Your task to perform on an android device: Go to Reddit.com Image 0: 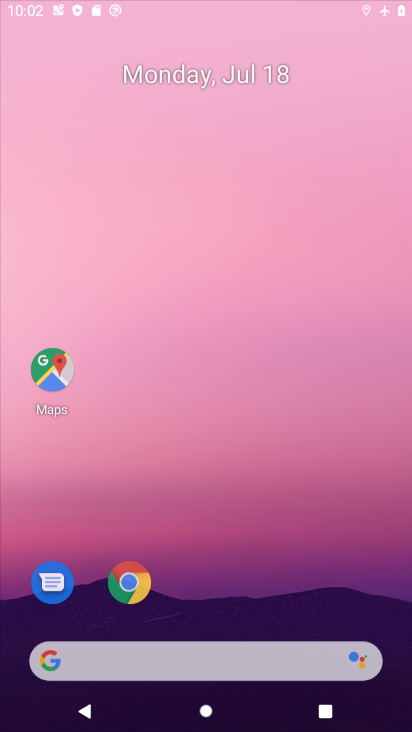
Step 0: click (233, 136)
Your task to perform on an android device: Go to Reddit.com Image 1: 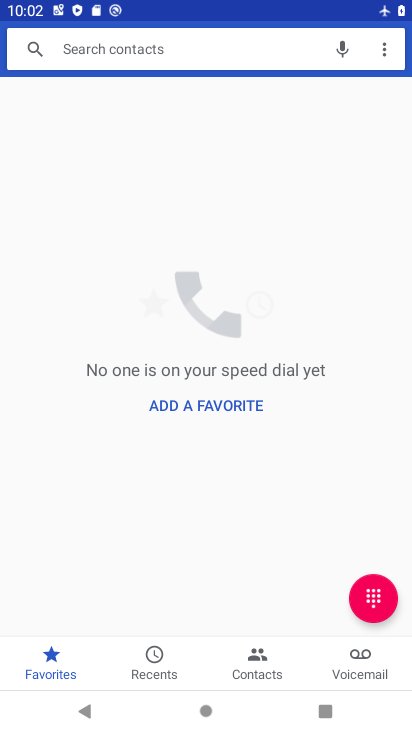
Step 1: press home button
Your task to perform on an android device: Go to Reddit.com Image 2: 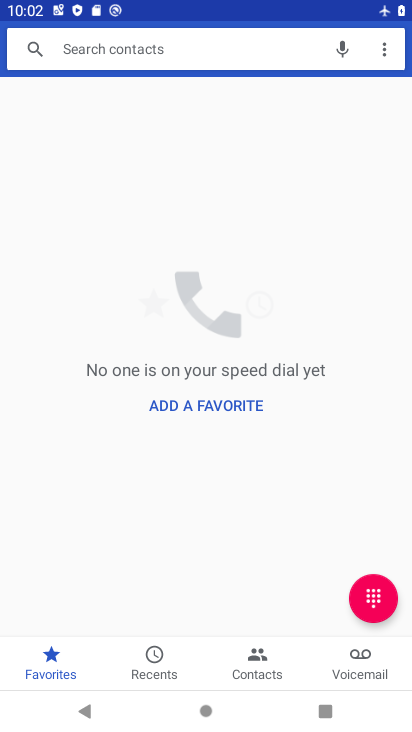
Step 2: press home button
Your task to perform on an android device: Go to Reddit.com Image 3: 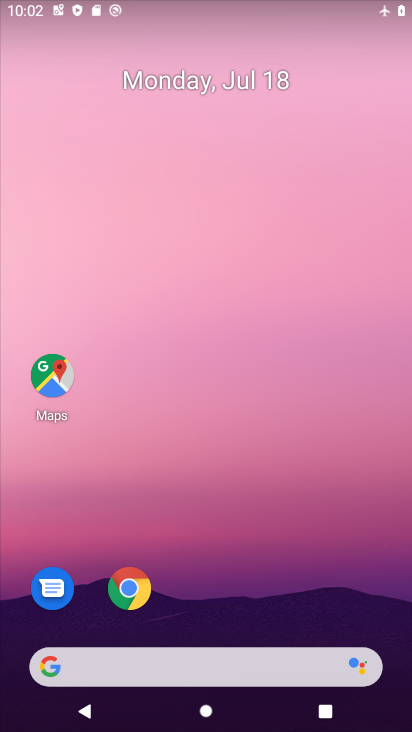
Step 3: click (257, 663)
Your task to perform on an android device: Go to Reddit.com Image 4: 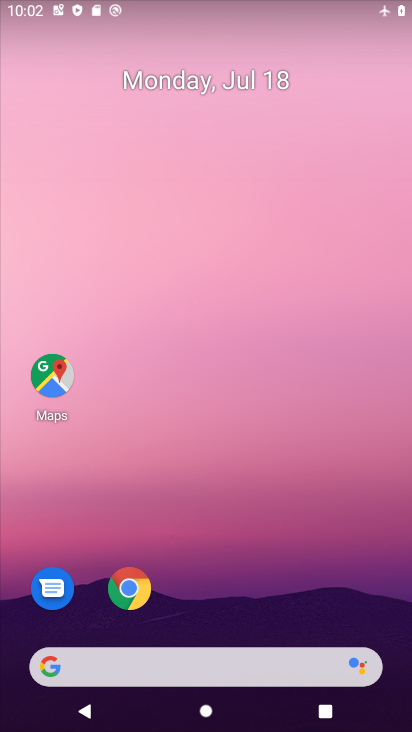
Step 4: click (273, 355)
Your task to perform on an android device: Go to Reddit.com Image 5: 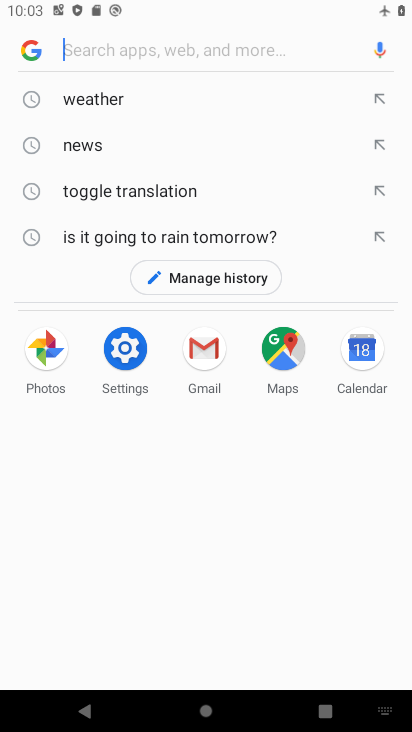
Step 5: type "r"
Your task to perform on an android device: Go to Reddit.com Image 6: 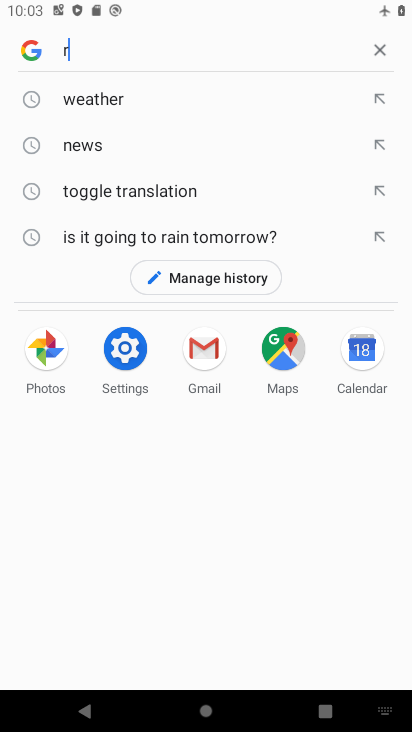
Step 6: press home button
Your task to perform on an android device: Go to Reddit.com Image 7: 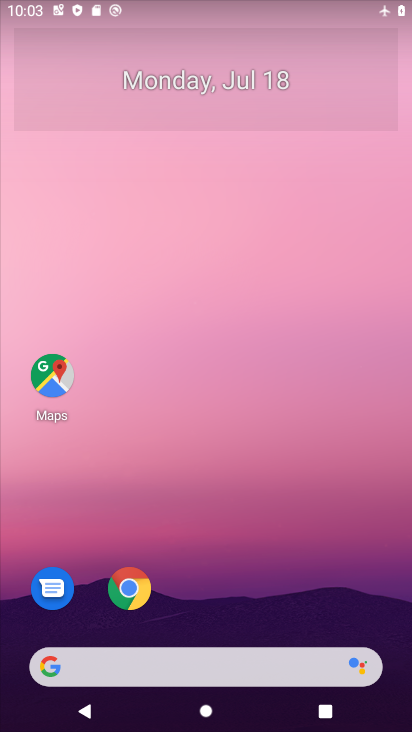
Step 7: click (126, 588)
Your task to perform on an android device: Go to Reddit.com Image 8: 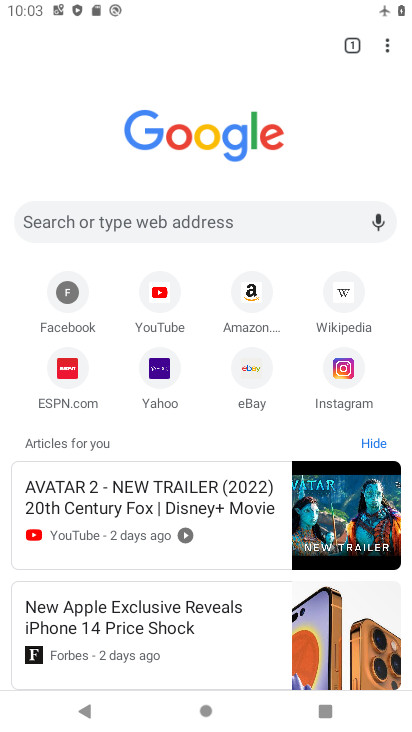
Step 8: click (218, 220)
Your task to perform on an android device: Go to Reddit.com Image 9: 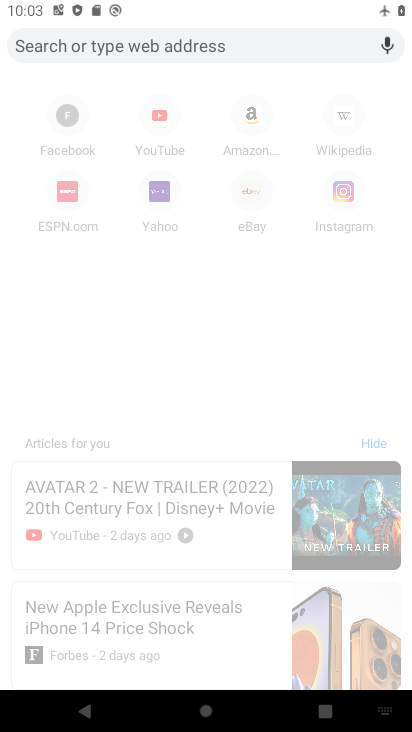
Step 9: type "Reddit.com"
Your task to perform on an android device: Go to Reddit.com Image 10: 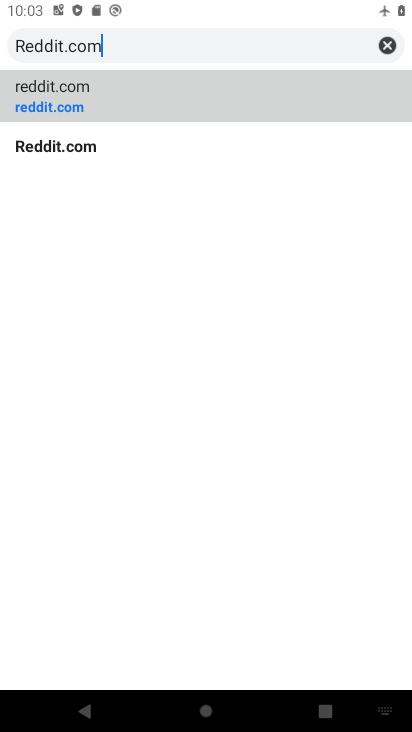
Step 10: type ""
Your task to perform on an android device: Go to Reddit.com Image 11: 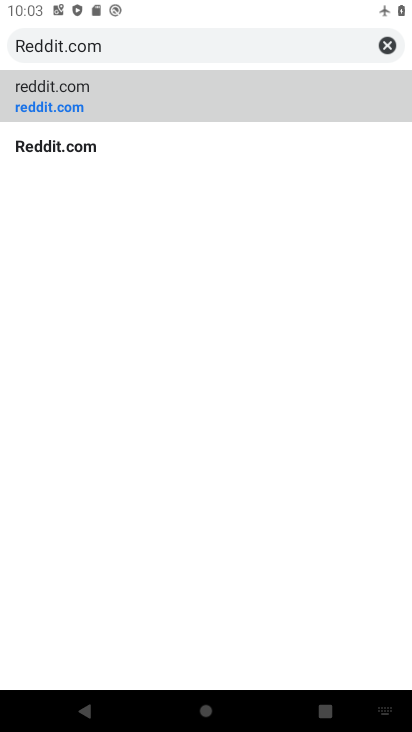
Step 11: click (51, 96)
Your task to perform on an android device: Go to Reddit.com Image 12: 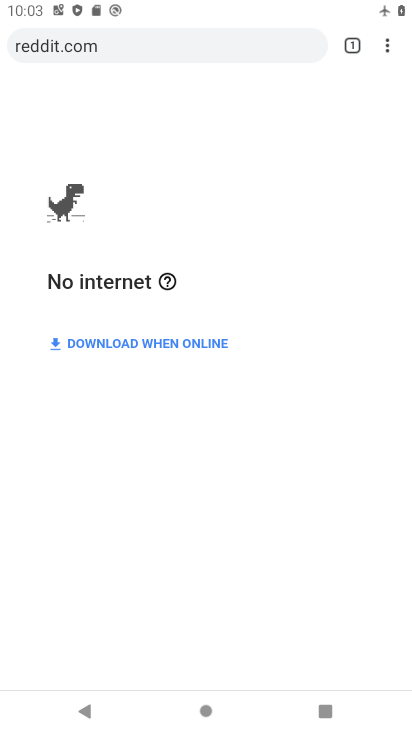
Step 12: task complete